Your task to perform on an android device: snooze an email in the gmail app Image 0: 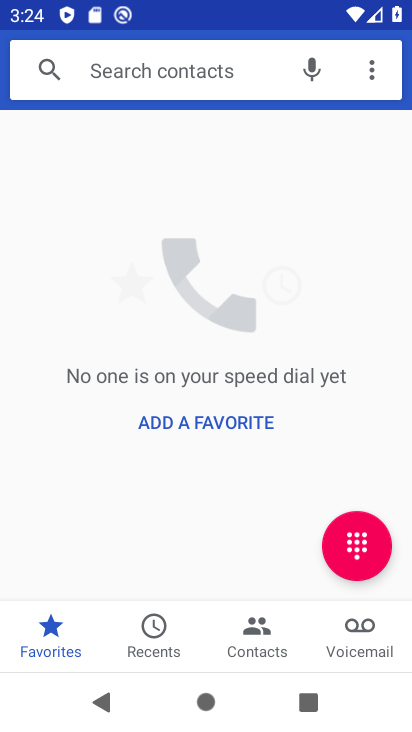
Step 0: press home button
Your task to perform on an android device: snooze an email in the gmail app Image 1: 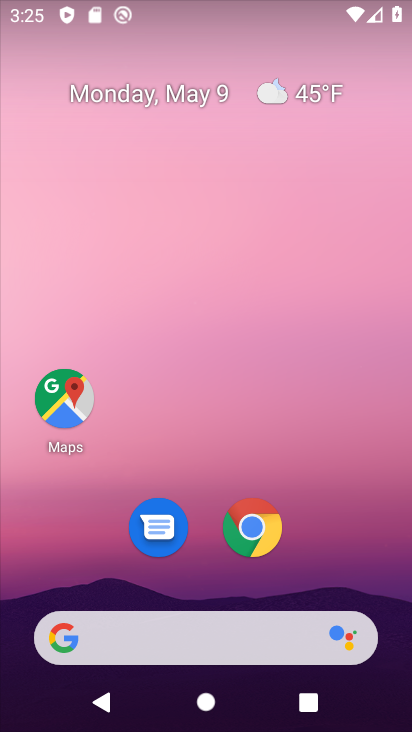
Step 1: click (365, 550)
Your task to perform on an android device: snooze an email in the gmail app Image 2: 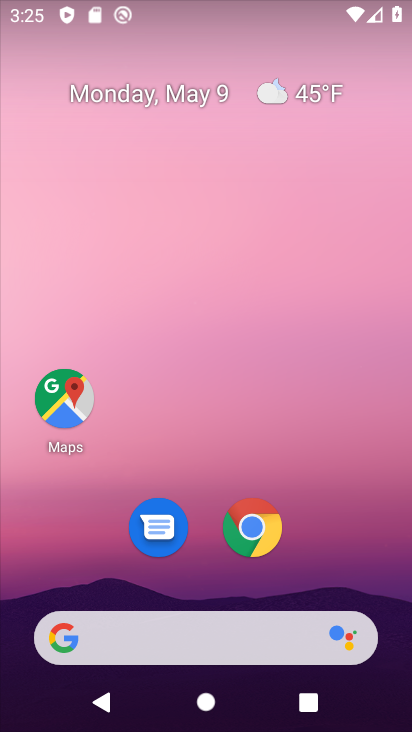
Step 2: drag from (397, 634) to (299, 313)
Your task to perform on an android device: snooze an email in the gmail app Image 3: 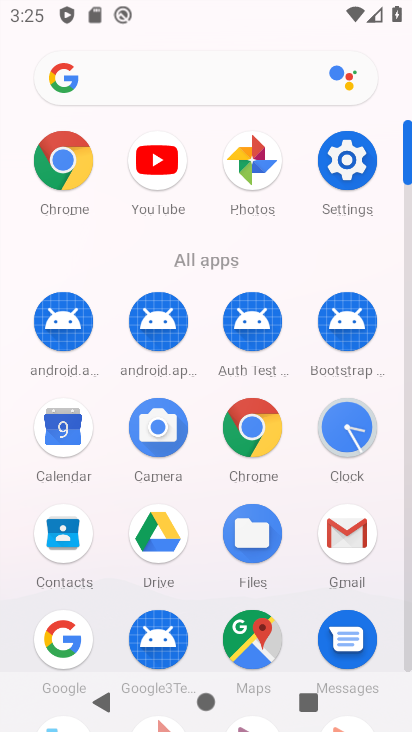
Step 3: click (351, 542)
Your task to perform on an android device: snooze an email in the gmail app Image 4: 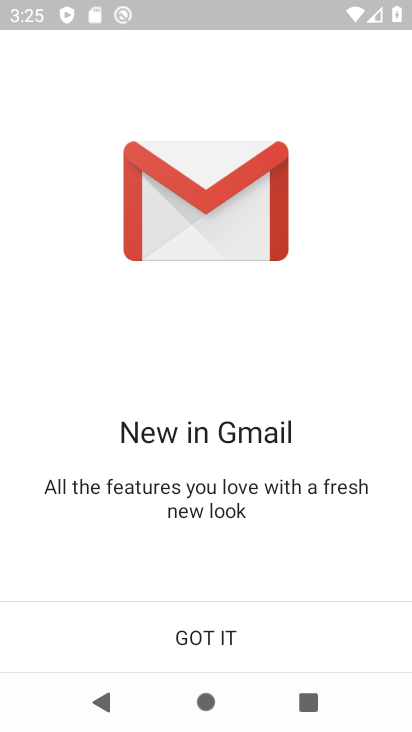
Step 4: click (194, 636)
Your task to perform on an android device: snooze an email in the gmail app Image 5: 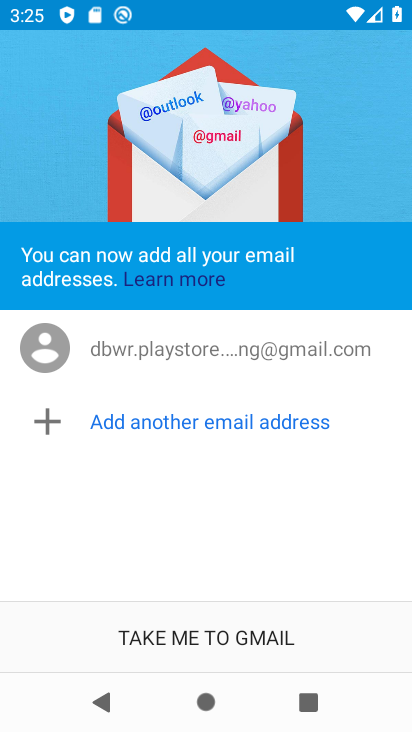
Step 5: click (194, 636)
Your task to perform on an android device: snooze an email in the gmail app Image 6: 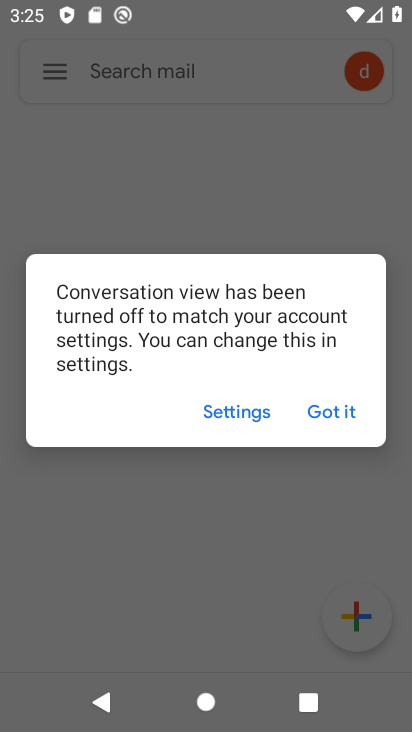
Step 6: click (342, 414)
Your task to perform on an android device: snooze an email in the gmail app Image 7: 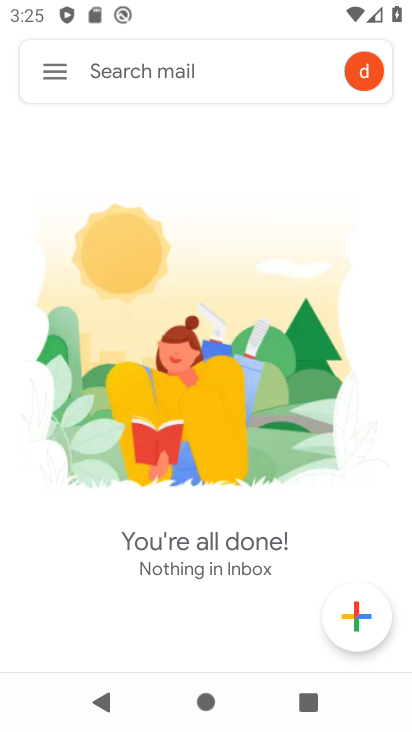
Step 7: click (48, 65)
Your task to perform on an android device: snooze an email in the gmail app Image 8: 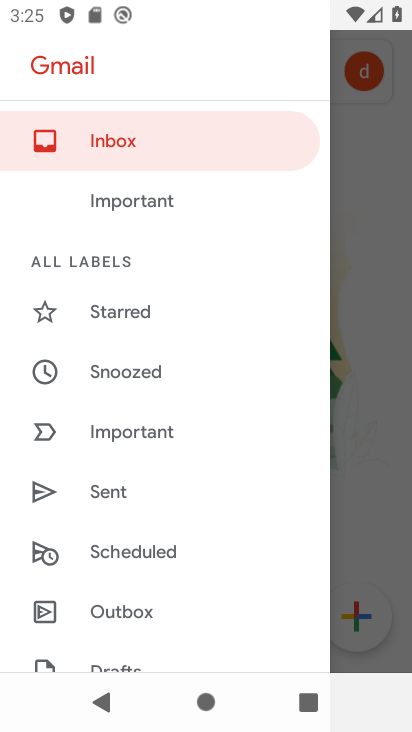
Step 8: drag from (219, 623) to (234, 346)
Your task to perform on an android device: snooze an email in the gmail app Image 9: 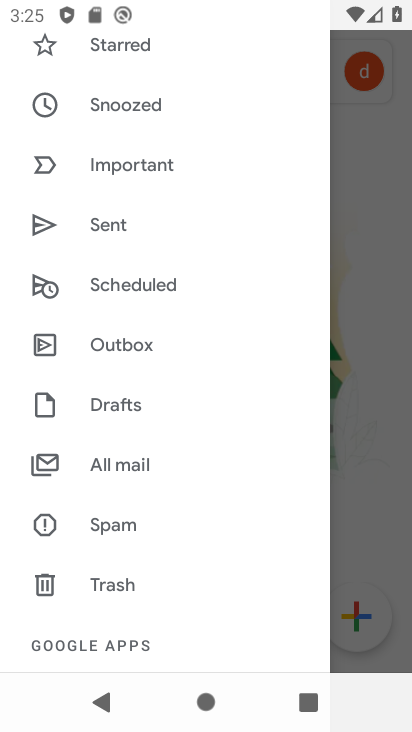
Step 9: click (230, 473)
Your task to perform on an android device: snooze an email in the gmail app Image 10: 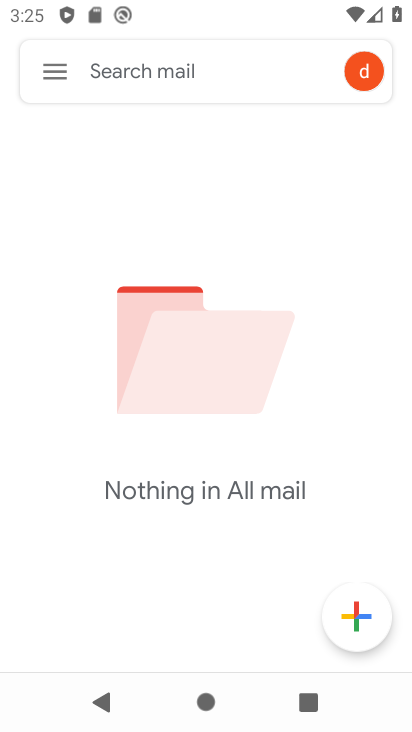
Step 10: task complete